Your task to perform on an android device: install app "Microsoft Outlook" Image 0: 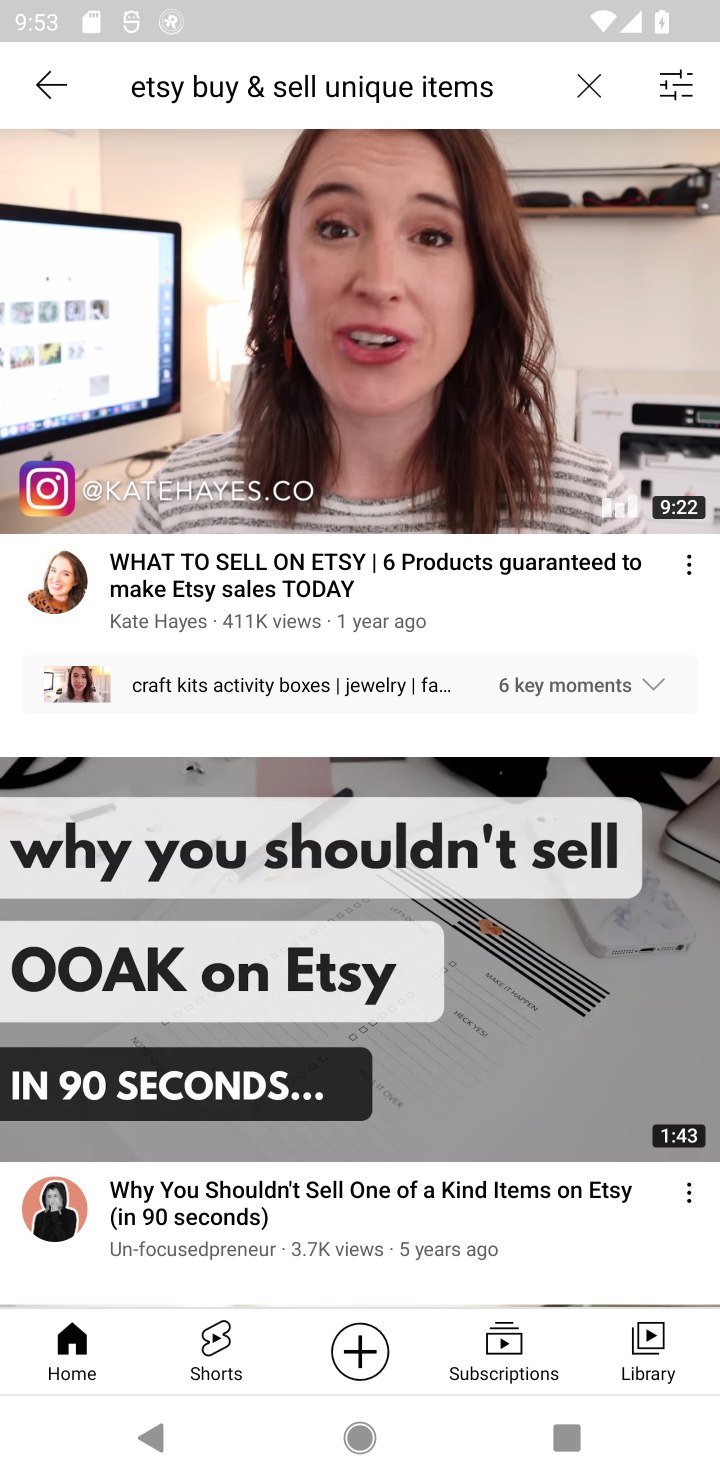
Step 0: press home button
Your task to perform on an android device: install app "Microsoft Outlook" Image 1: 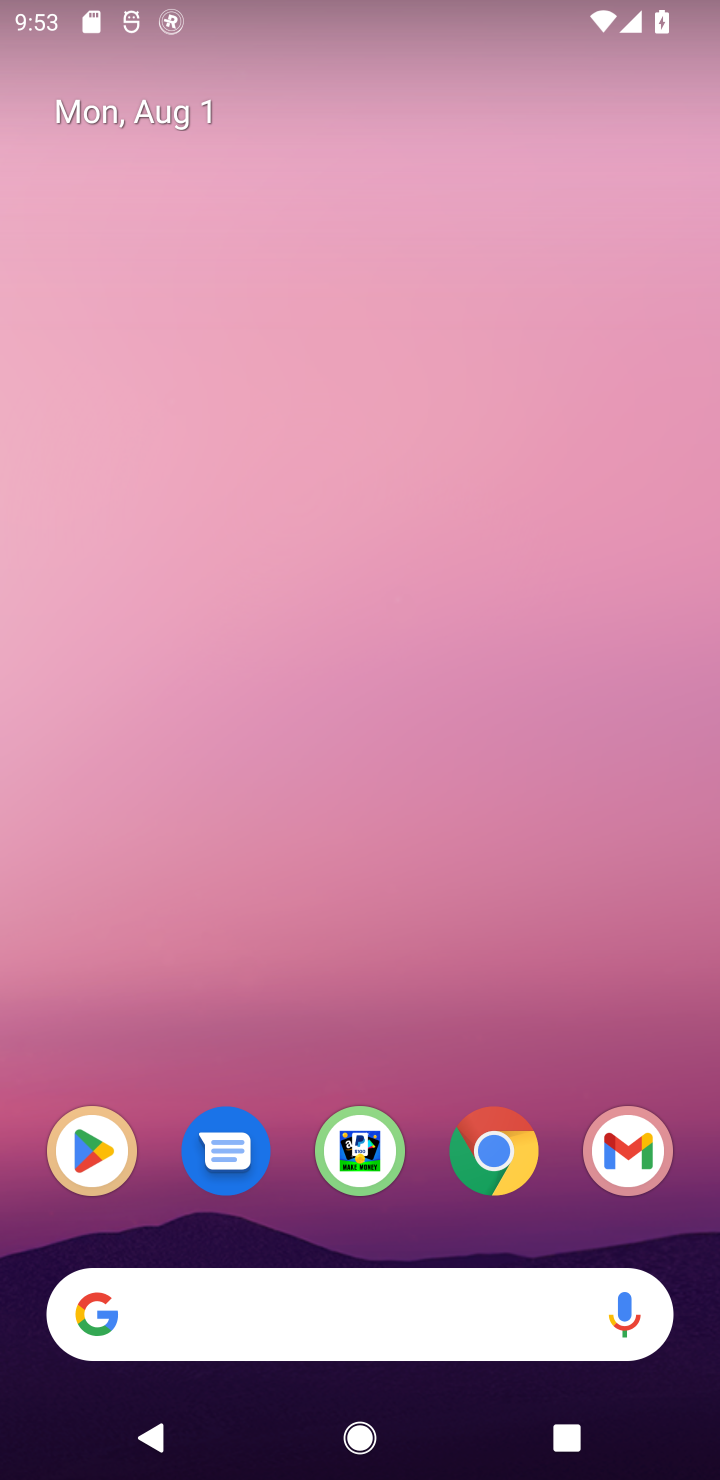
Step 1: click (78, 1148)
Your task to perform on an android device: install app "Microsoft Outlook" Image 2: 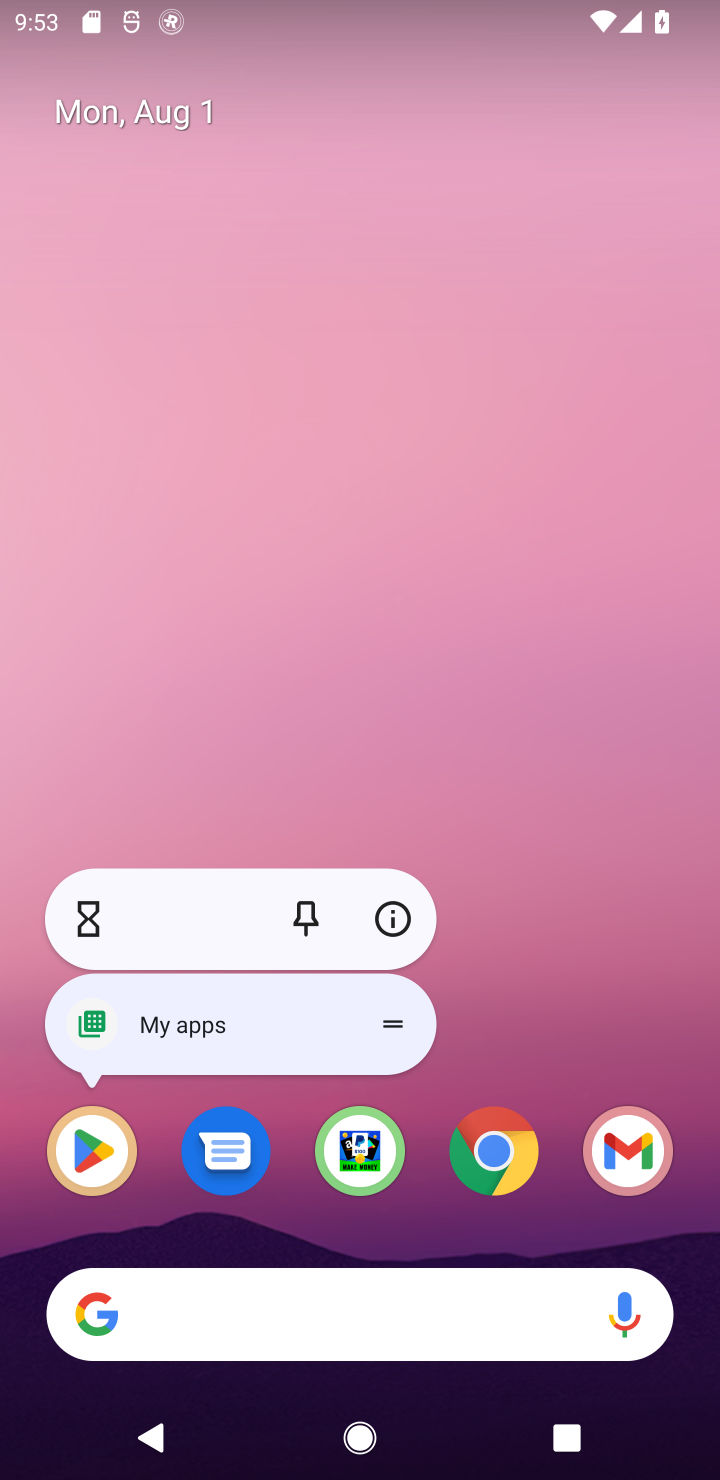
Step 2: click (78, 1148)
Your task to perform on an android device: install app "Microsoft Outlook" Image 3: 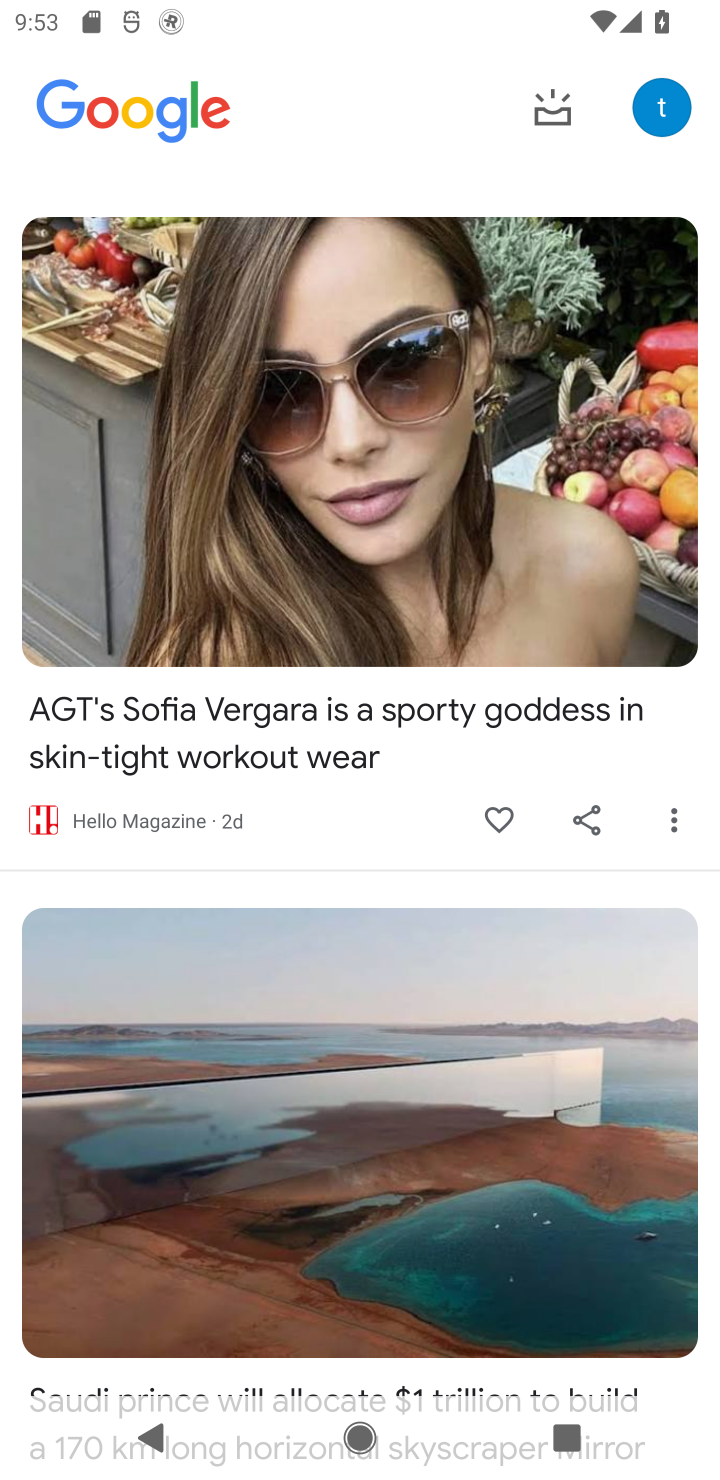
Step 3: press back button
Your task to perform on an android device: install app "Microsoft Outlook" Image 4: 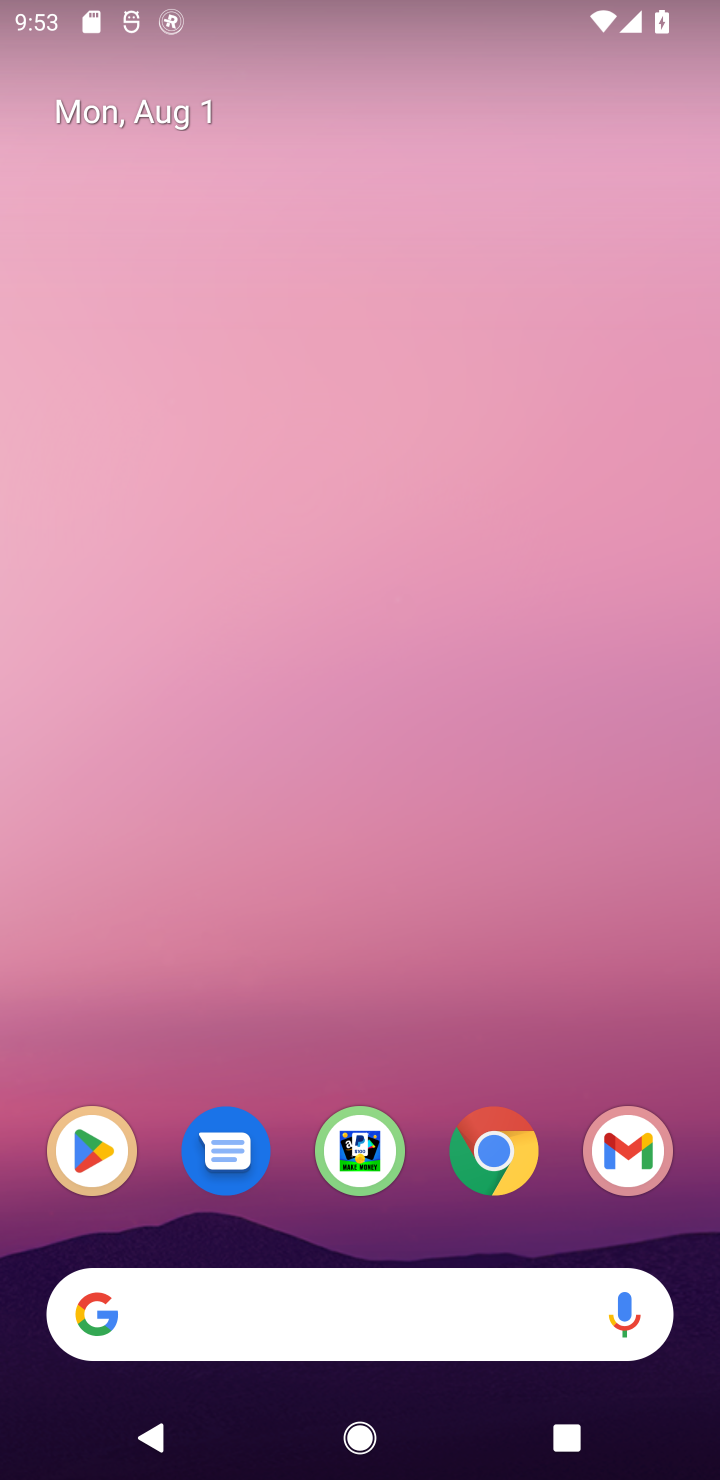
Step 4: click (94, 1156)
Your task to perform on an android device: install app "Microsoft Outlook" Image 5: 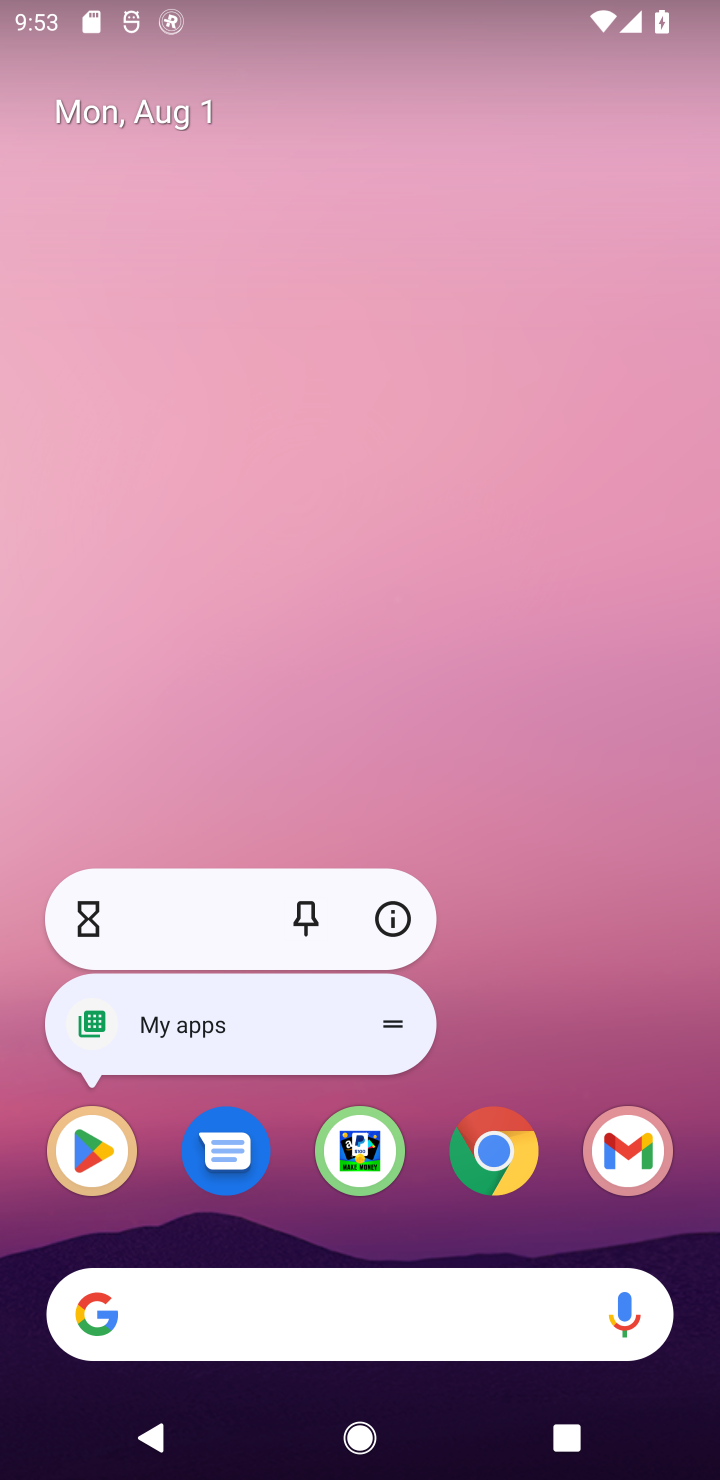
Step 5: click (94, 1156)
Your task to perform on an android device: install app "Microsoft Outlook" Image 6: 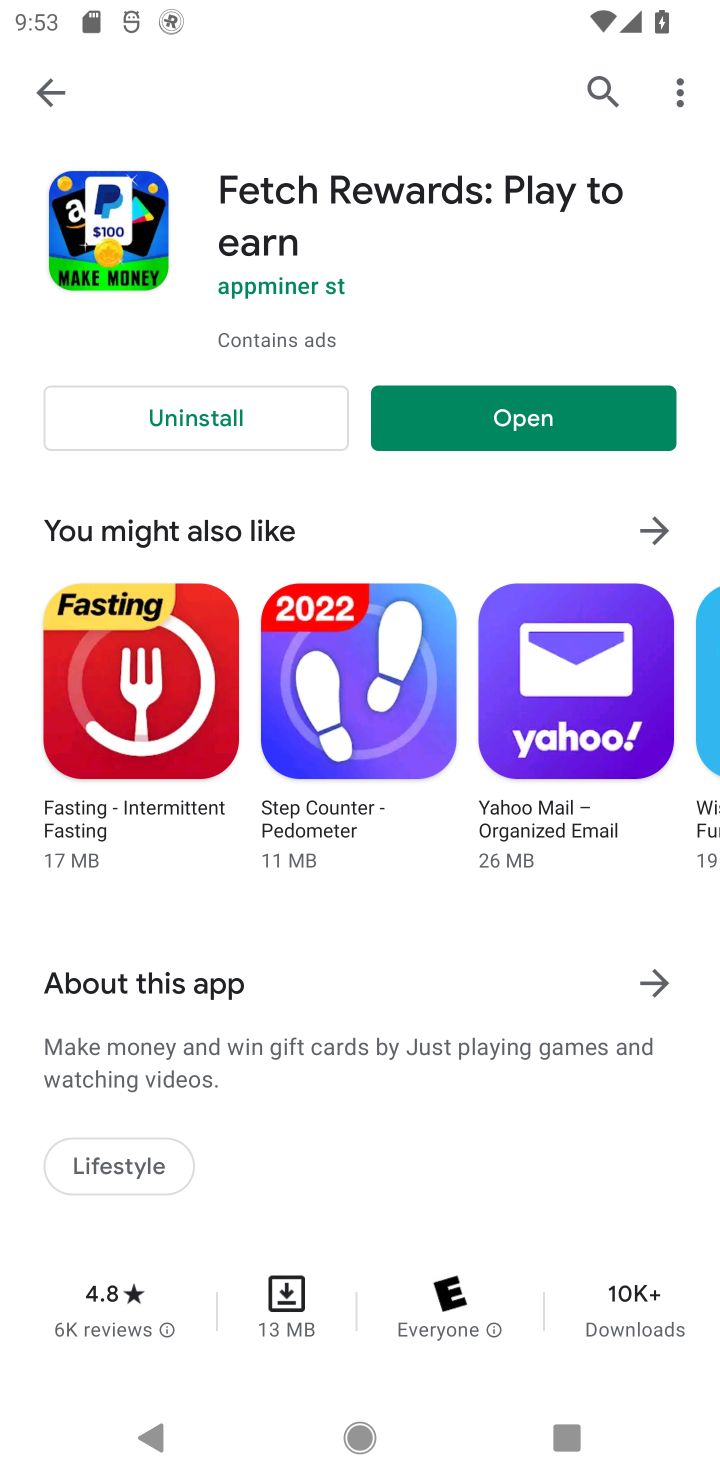
Step 6: click (587, 69)
Your task to perform on an android device: install app "Microsoft Outlook" Image 7: 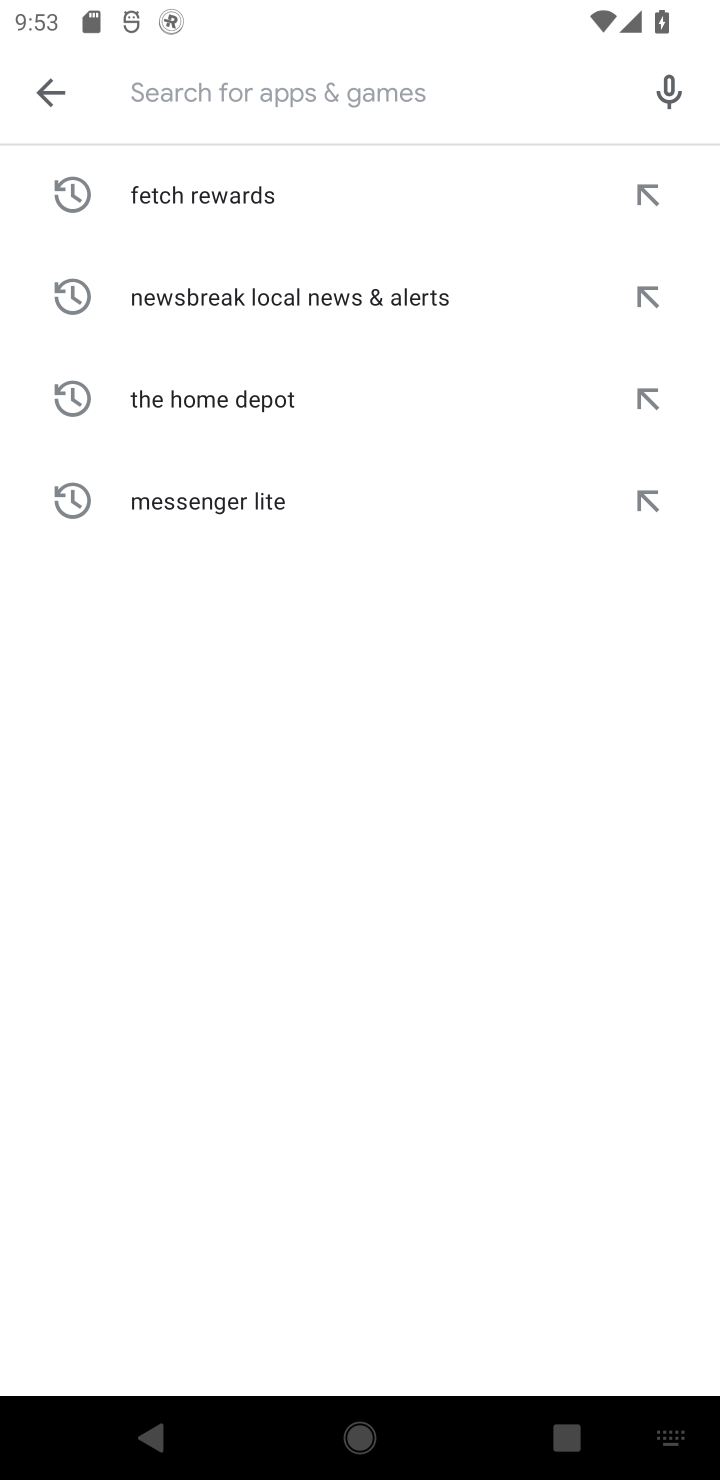
Step 7: type "Microsoft Outlook"
Your task to perform on an android device: install app "Microsoft Outlook" Image 8: 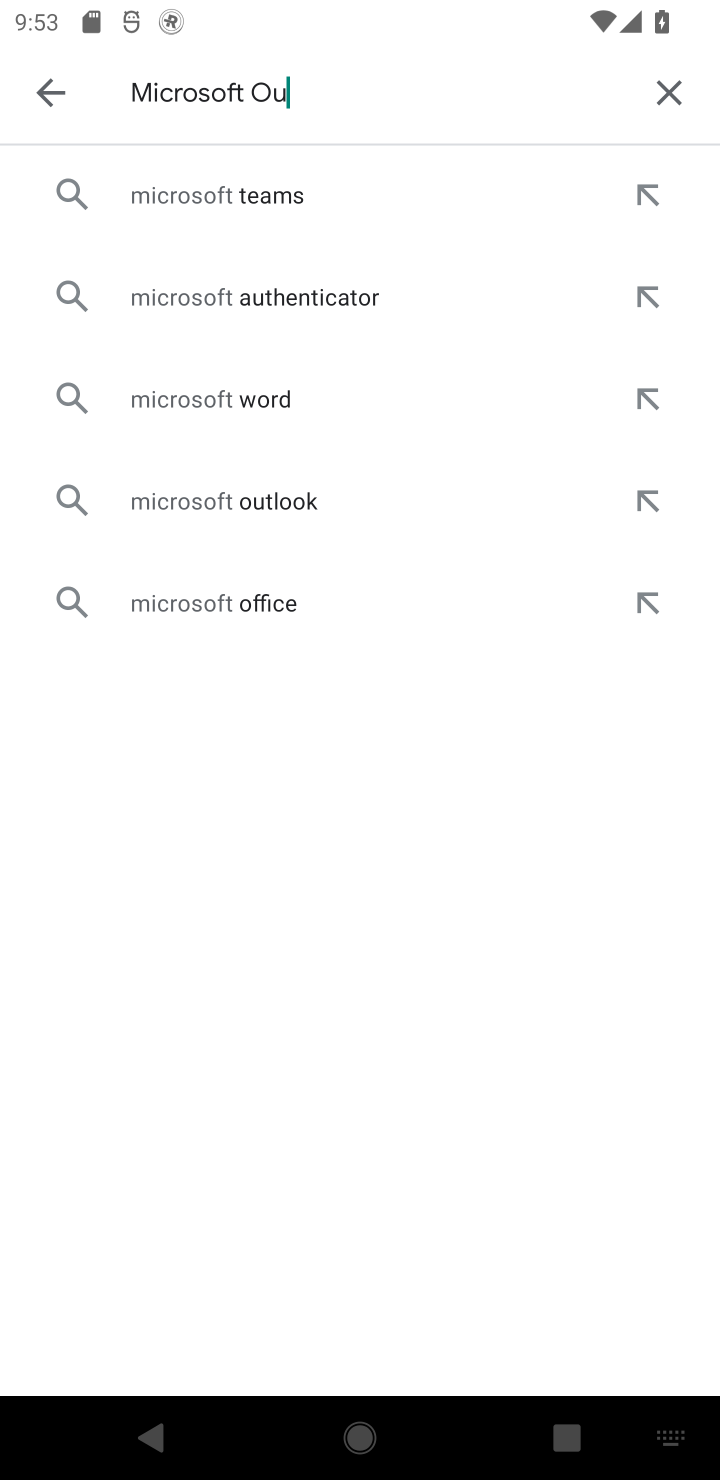
Step 8: type ""
Your task to perform on an android device: install app "Microsoft Outlook" Image 9: 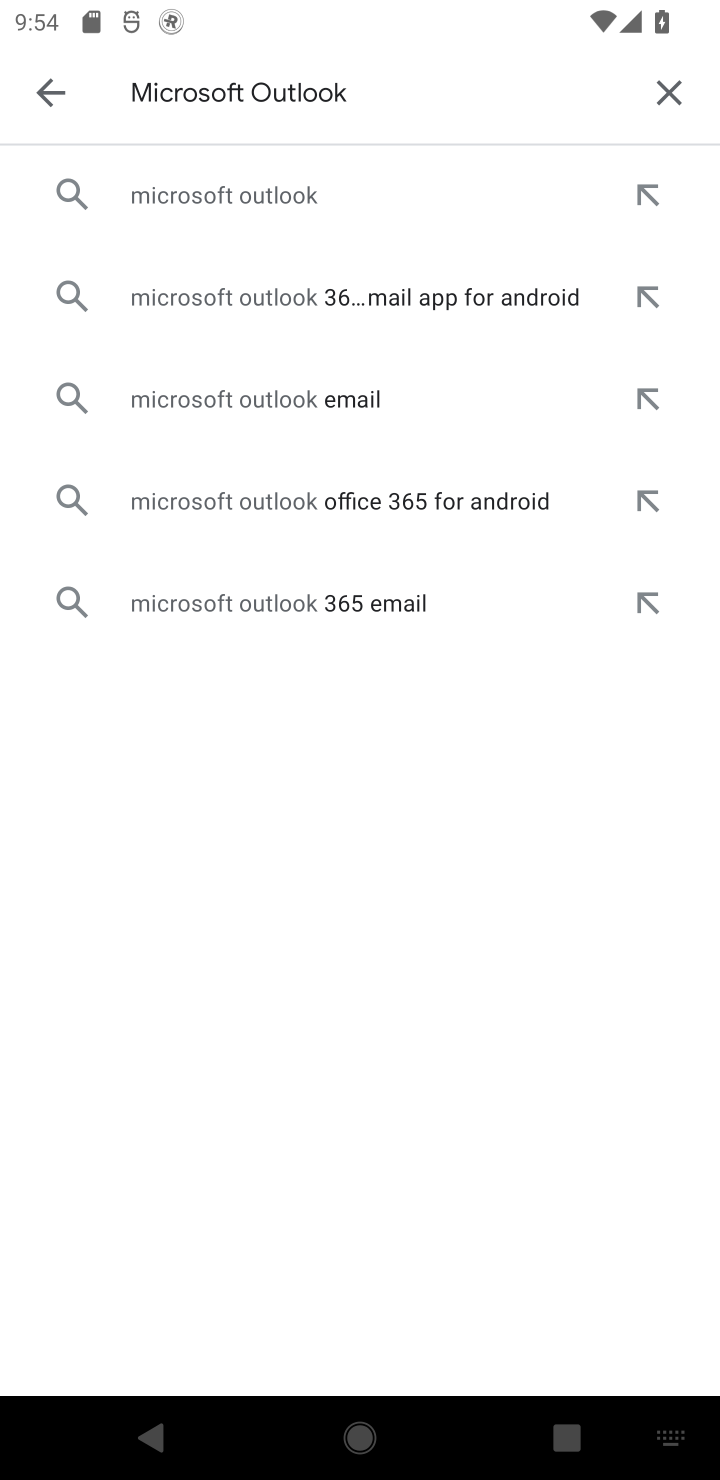
Step 9: click (346, 213)
Your task to perform on an android device: install app "Microsoft Outlook" Image 10: 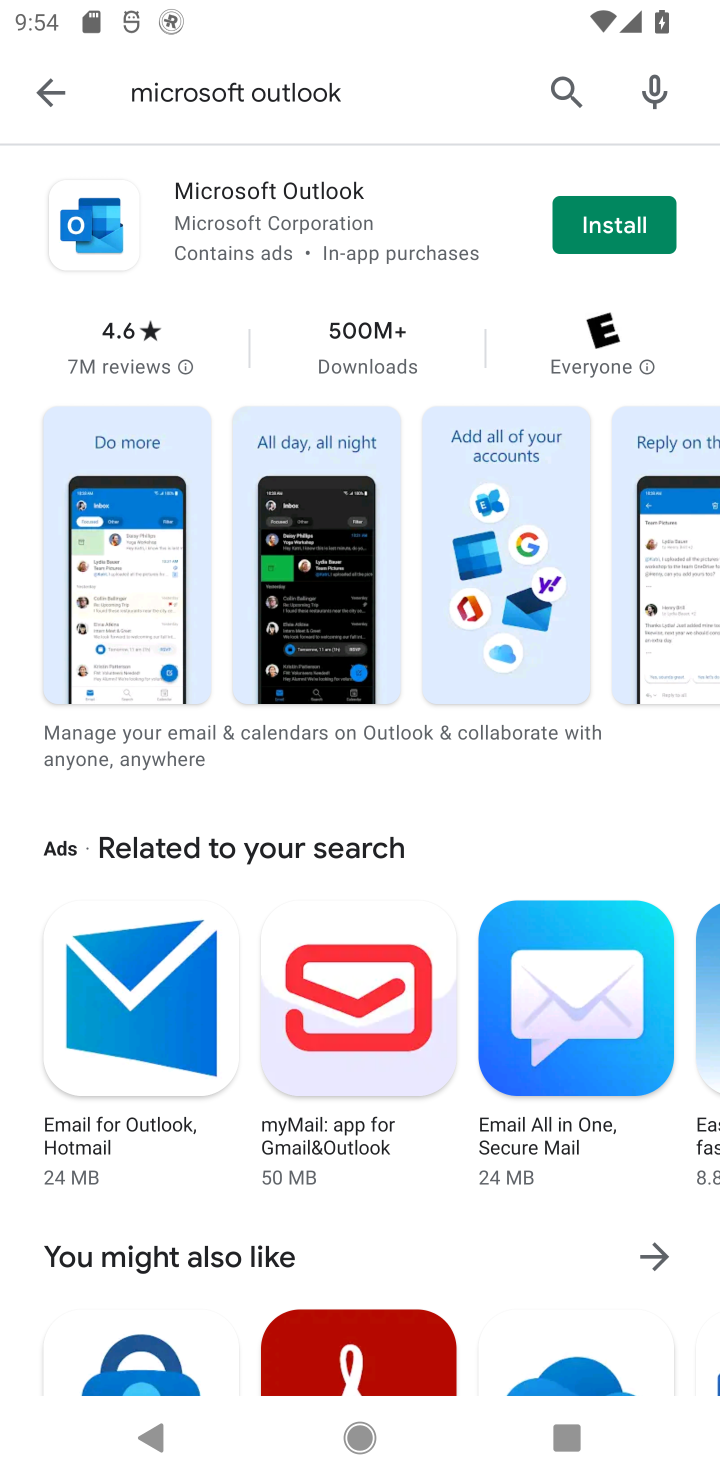
Step 10: click (634, 218)
Your task to perform on an android device: install app "Microsoft Outlook" Image 11: 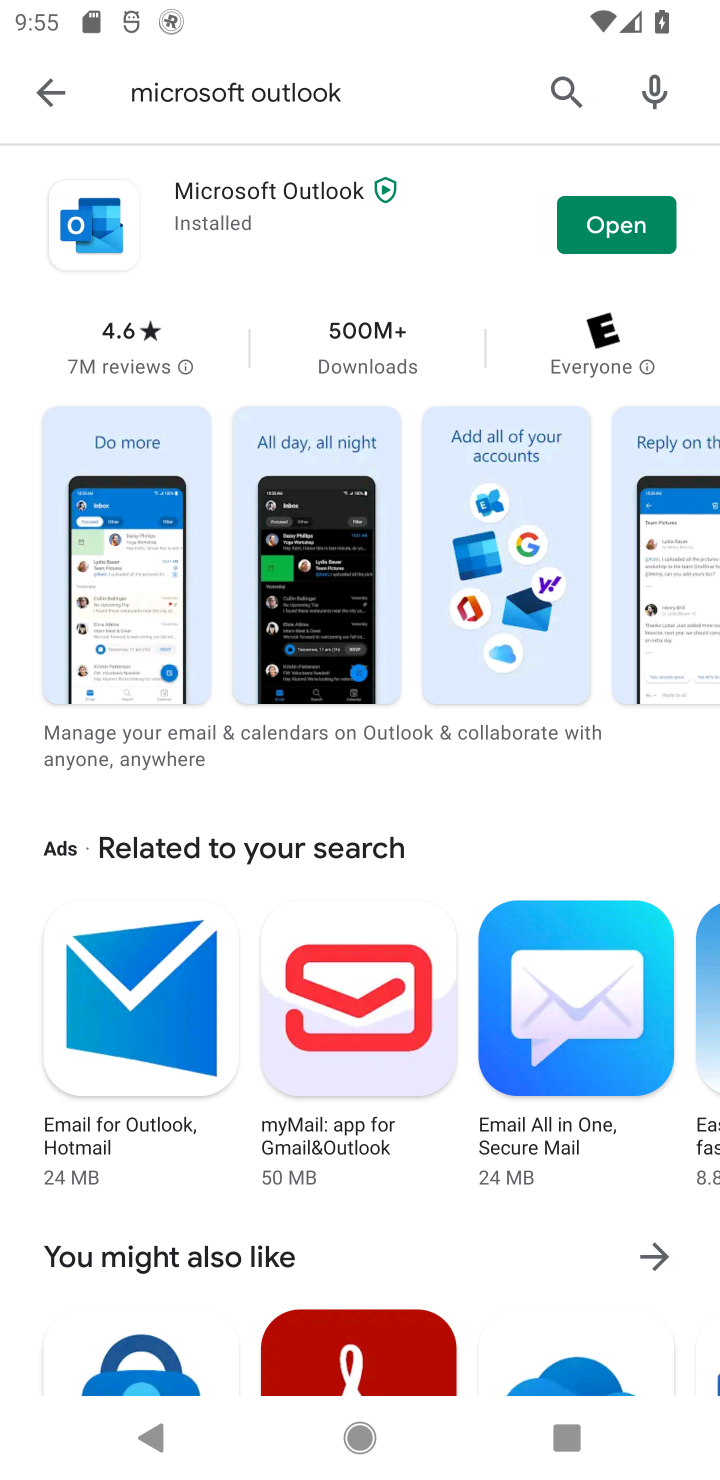
Step 11: task complete